Your task to perform on an android device: Turn on the flashlight Image 0: 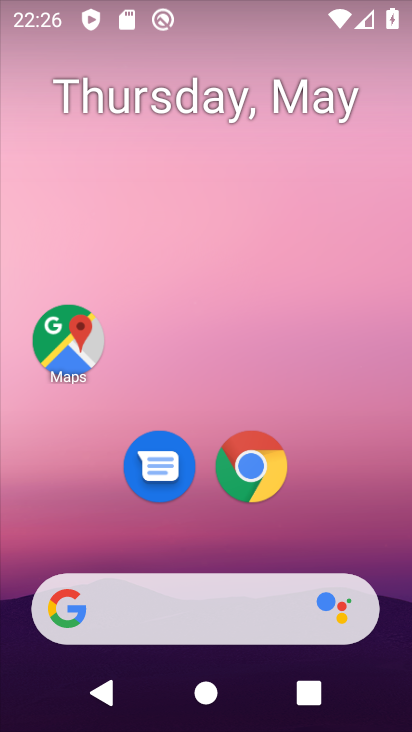
Step 0: drag from (346, 414) to (247, 0)
Your task to perform on an android device: Turn on the flashlight Image 1: 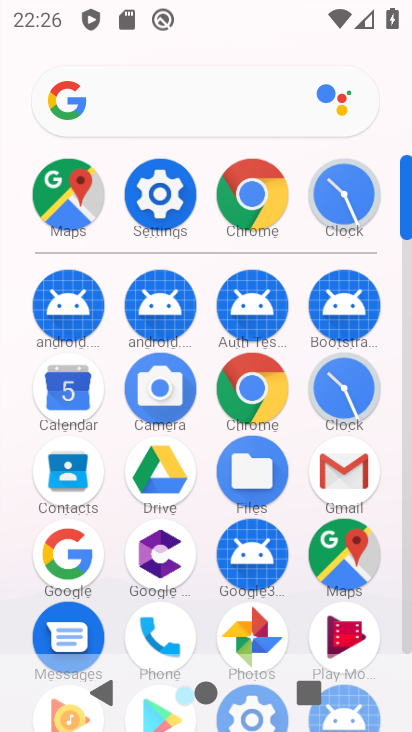
Step 1: click (163, 193)
Your task to perform on an android device: Turn on the flashlight Image 2: 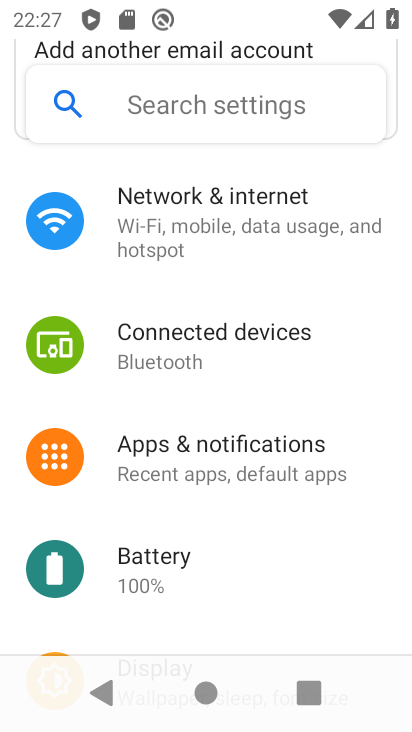
Step 2: drag from (209, 557) to (254, 133)
Your task to perform on an android device: Turn on the flashlight Image 3: 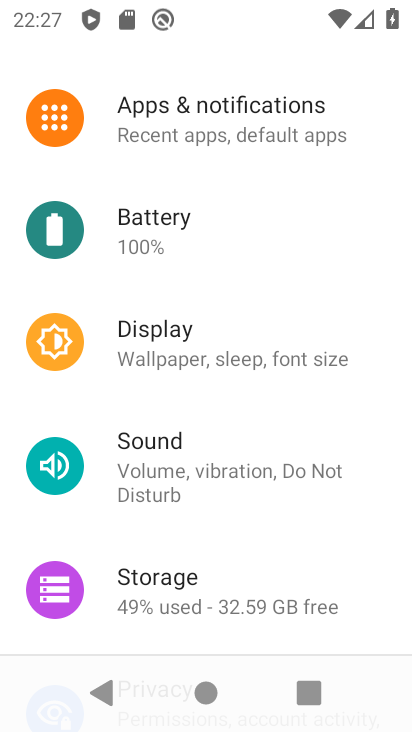
Step 3: click (137, 370)
Your task to perform on an android device: Turn on the flashlight Image 4: 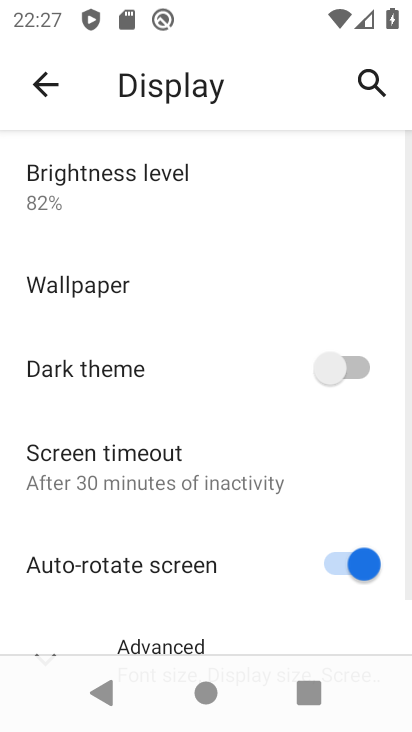
Step 4: task complete